Your task to perform on an android device: Go to wifi settings Image 0: 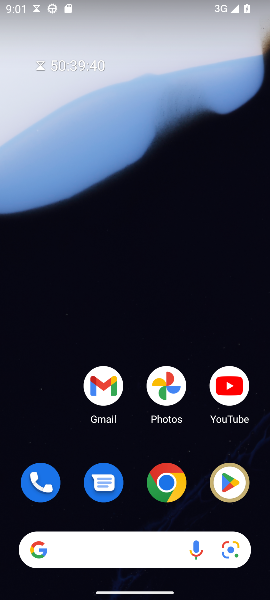
Step 0: drag from (28, 485) to (131, 139)
Your task to perform on an android device: Go to wifi settings Image 1: 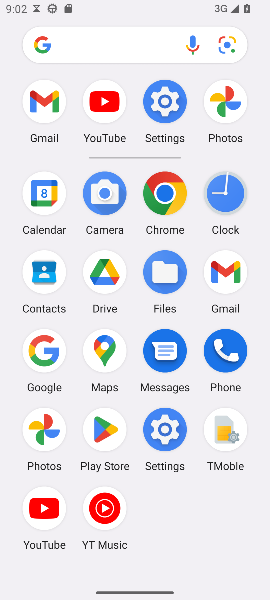
Step 1: click (150, 105)
Your task to perform on an android device: Go to wifi settings Image 2: 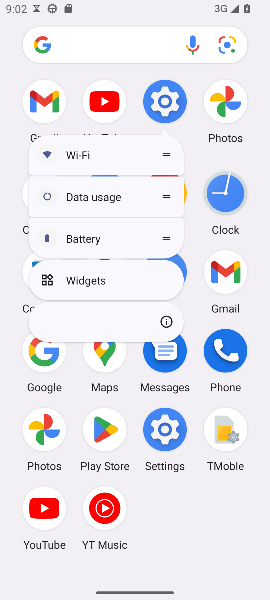
Step 2: click (150, 106)
Your task to perform on an android device: Go to wifi settings Image 3: 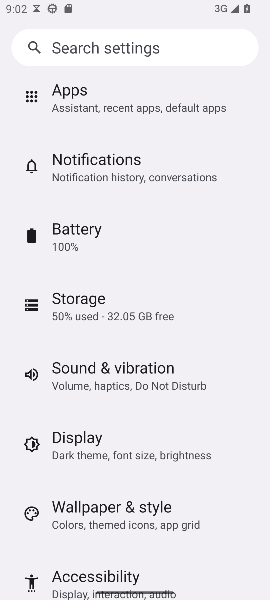
Step 3: drag from (144, 100) to (55, 411)
Your task to perform on an android device: Go to wifi settings Image 4: 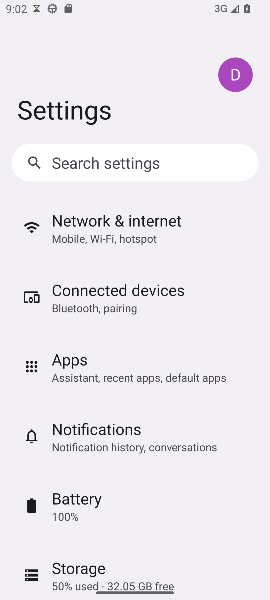
Step 4: click (72, 227)
Your task to perform on an android device: Go to wifi settings Image 5: 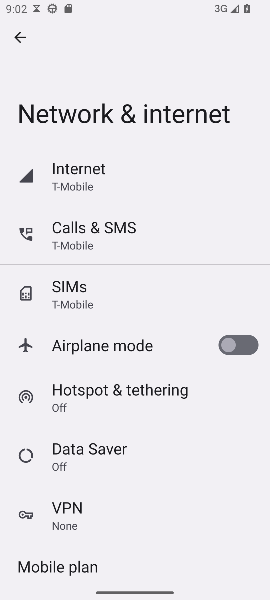
Step 5: click (69, 180)
Your task to perform on an android device: Go to wifi settings Image 6: 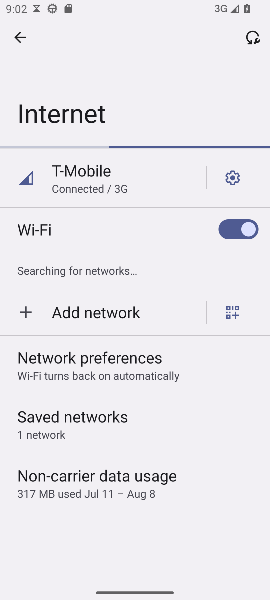
Step 6: click (35, 233)
Your task to perform on an android device: Go to wifi settings Image 7: 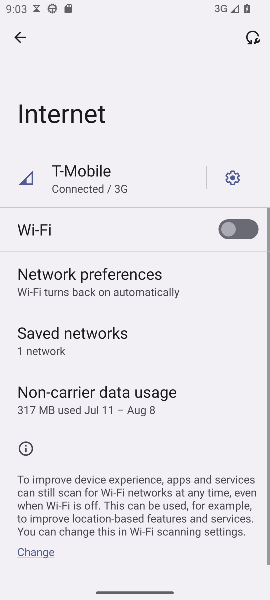
Step 7: task complete